Your task to perform on an android device: What's on my calendar tomorrow? Image 0: 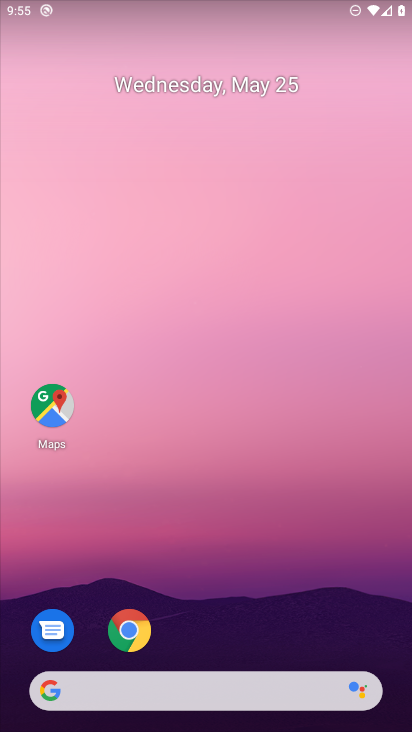
Step 0: drag from (169, 670) to (296, 20)
Your task to perform on an android device: What's on my calendar tomorrow? Image 1: 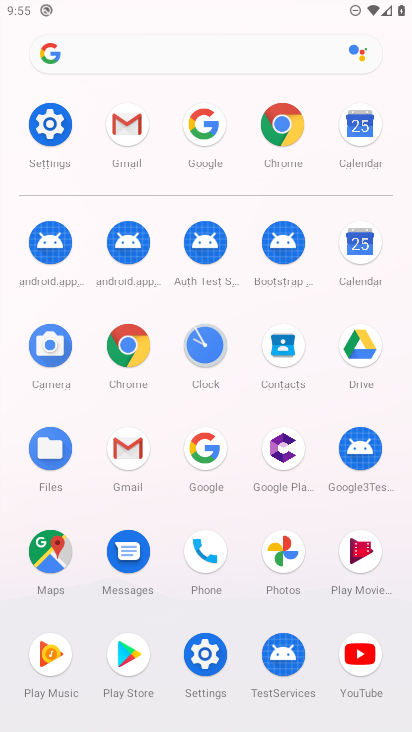
Step 1: click (361, 244)
Your task to perform on an android device: What's on my calendar tomorrow? Image 2: 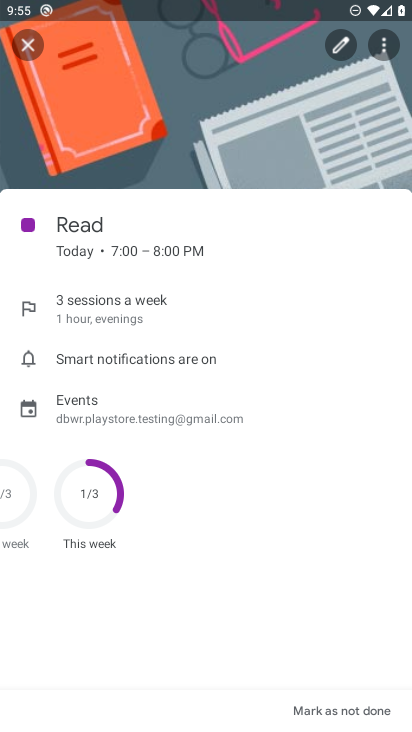
Step 2: click (27, 43)
Your task to perform on an android device: What's on my calendar tomorrow? Image 3: 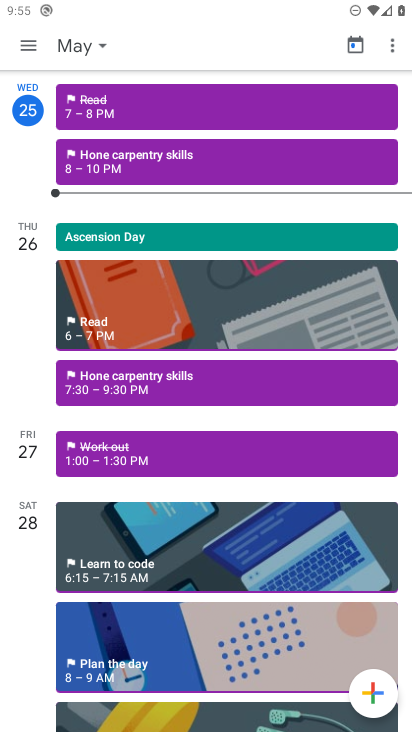
Step 3: click (87, 42)
Your task to perform on an android device: What's on my calendar tomorrow? Image 4: 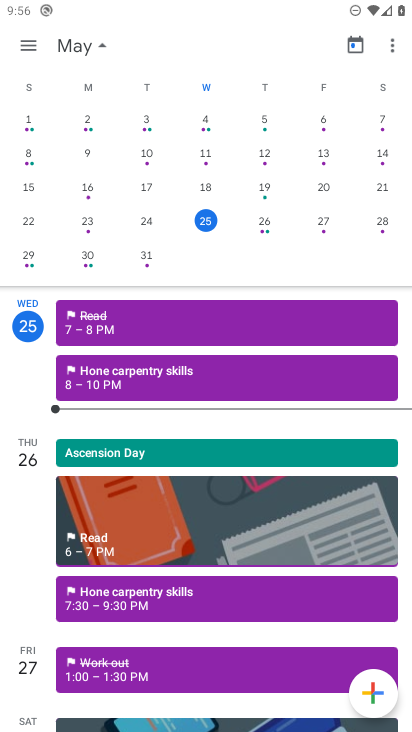
Step 4: click (265, 224)
Your task to perform on an android device: What's on my calendar tomorrow? Image 5: 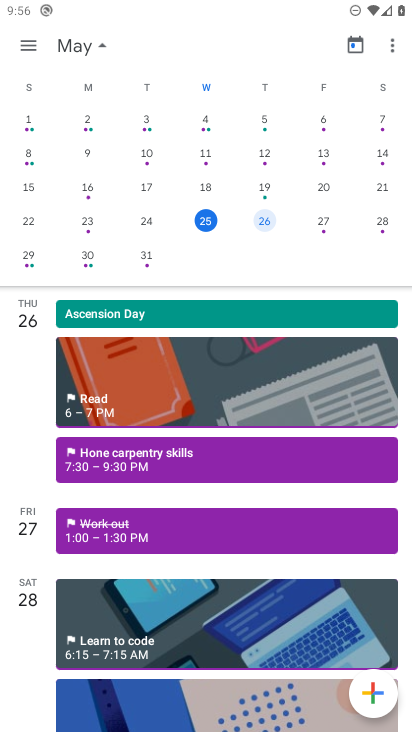
Step 5: task complete